Your task to perform on an android device: turn off data saver in the chrome app Image 0: 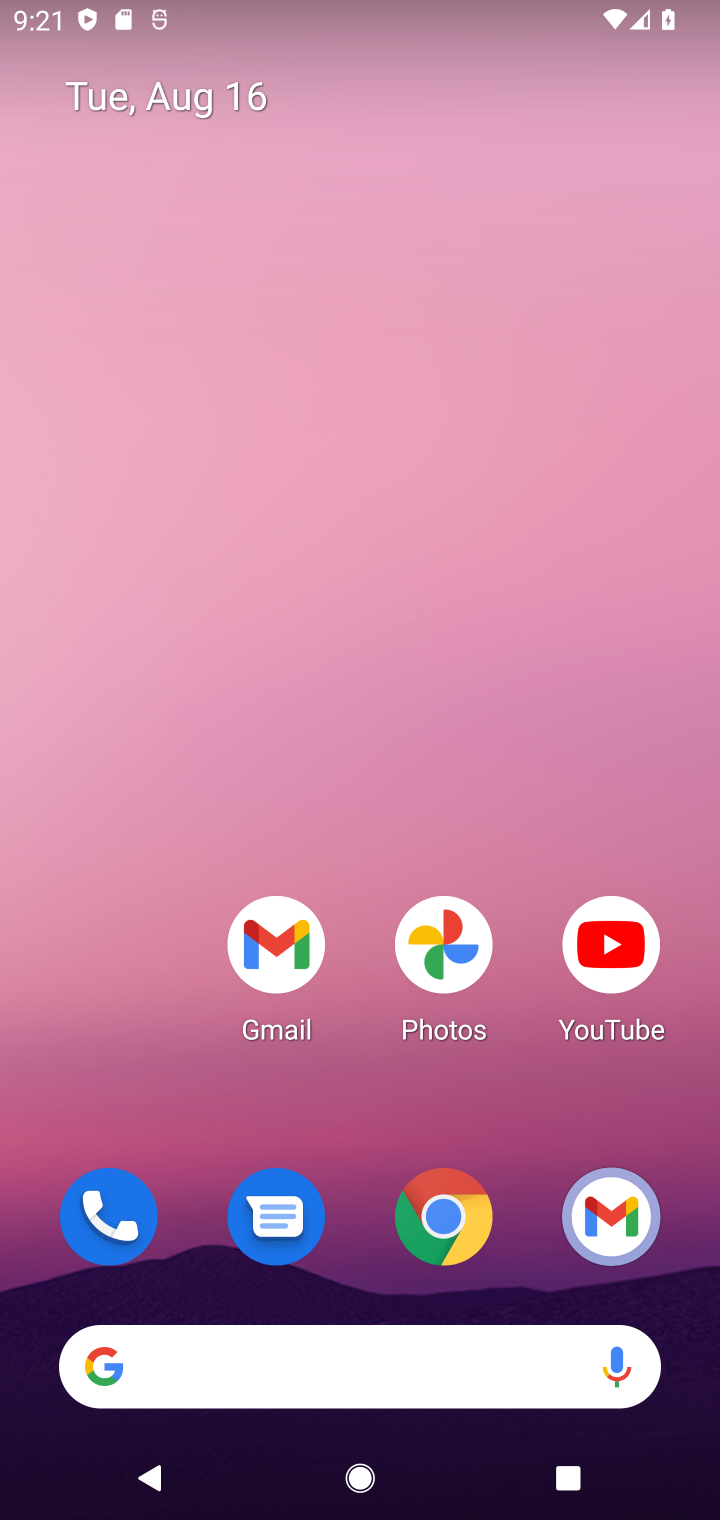
Step 0: click (446, 1211)
Your task to perform on an android device: turn off data saver in the chrome app Image 1: 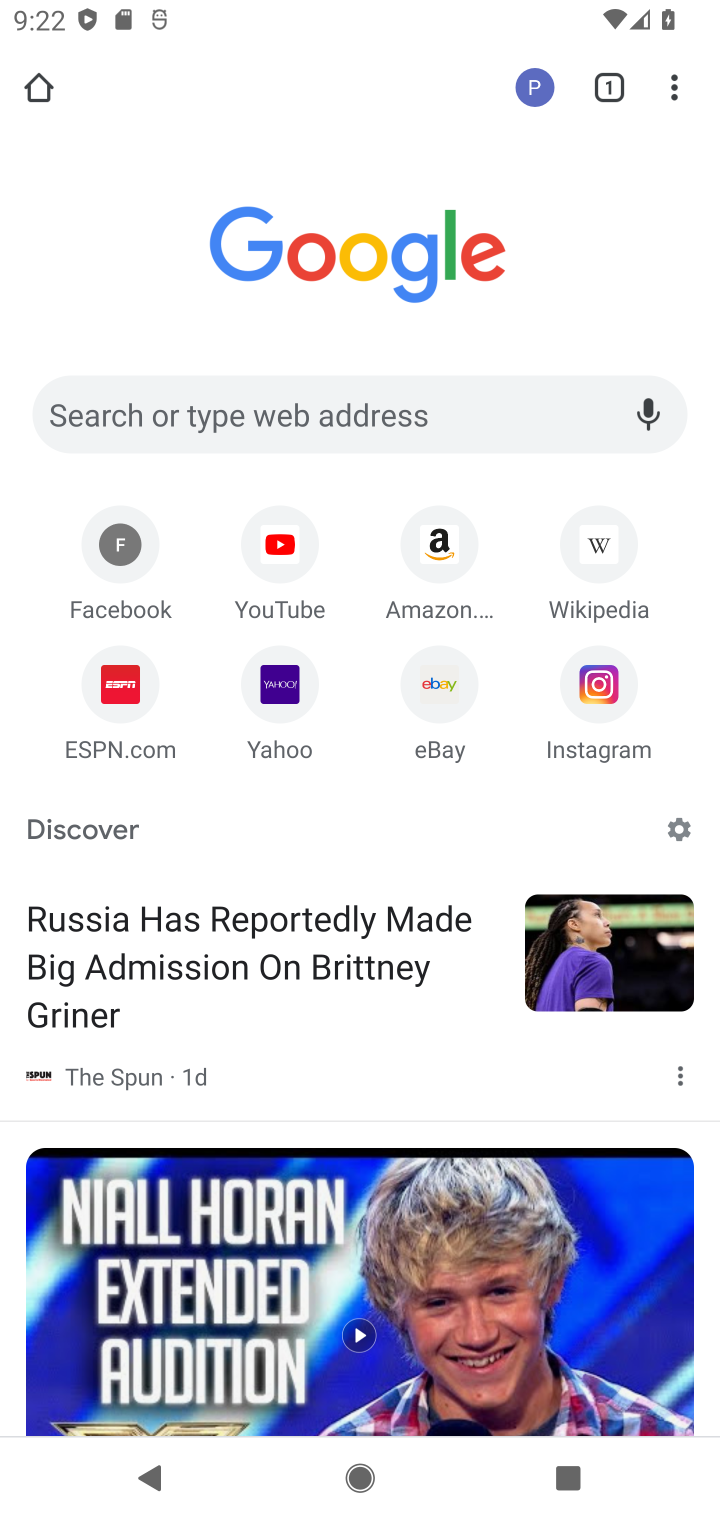
Step 1: click (670, 87)
Your task to perform on an android device: turn off data saver in the chrome app Image 2: 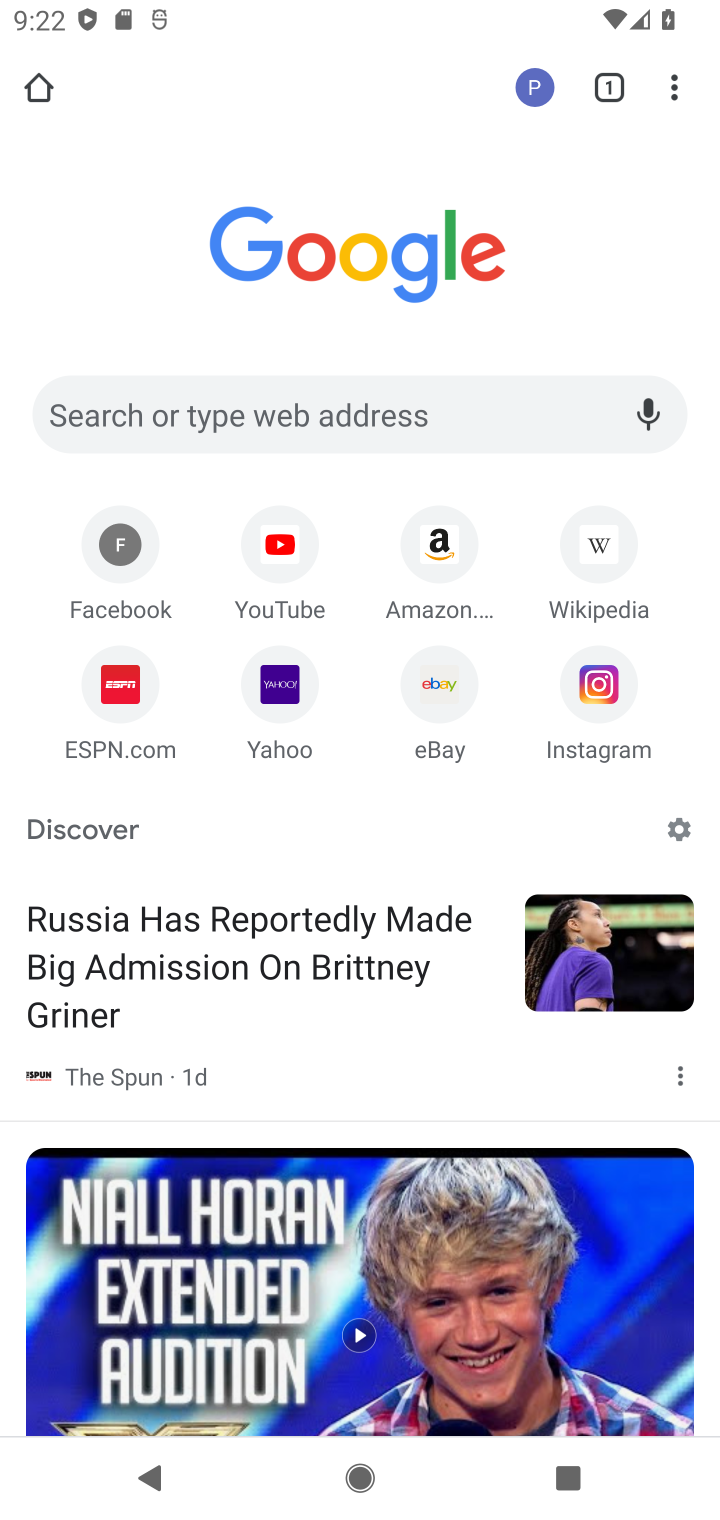
Step 2: click (676, 86)
Your task to perform on an android device: turn off data saver in the chrome app Image 3: 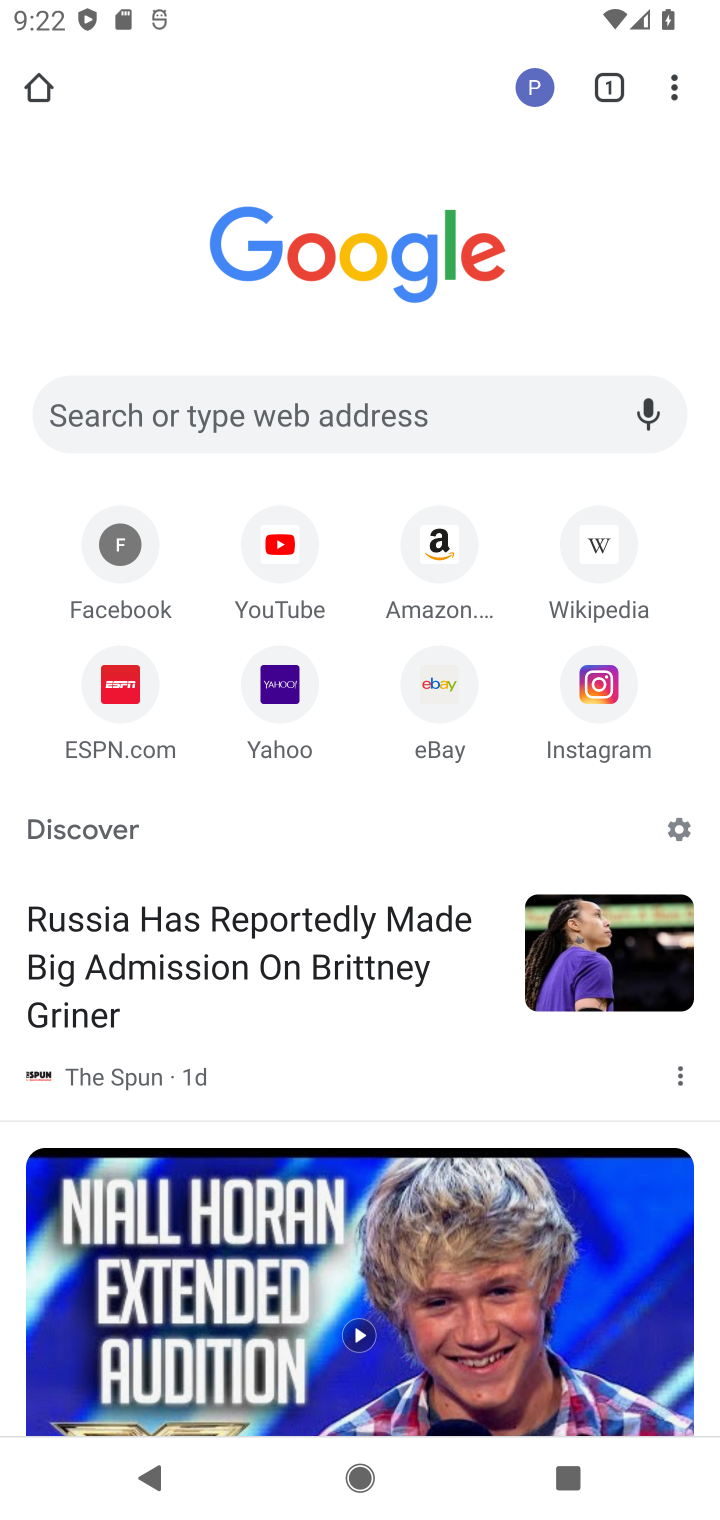
Step 3: drag from (676, 91) to (503, 749)
Your task to perform on an android device: turn off data saver in the chrome app Image 4: 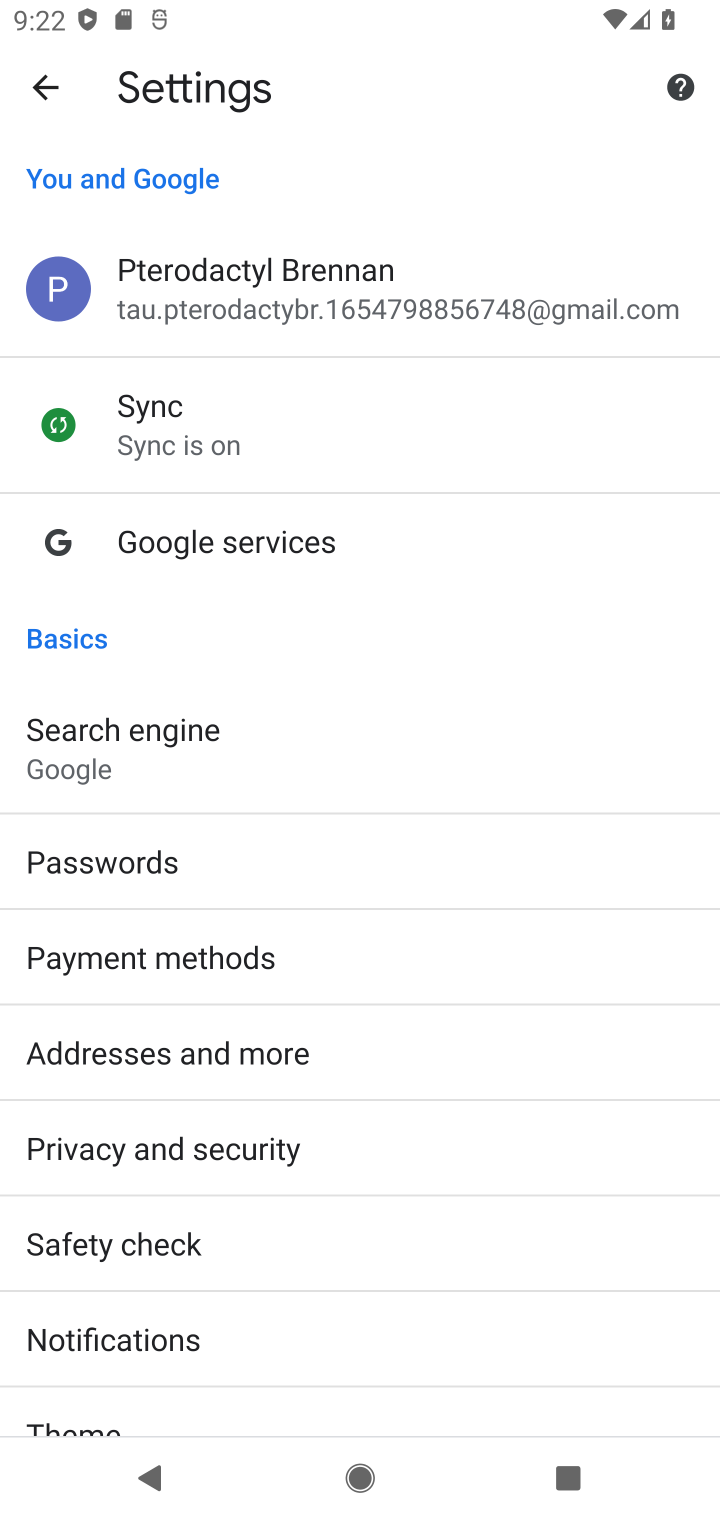
Step 4: drag from (123, 1289) to (190, 841)
Your task to perform on an android device: turn off data saver in the chrome app Image 5: 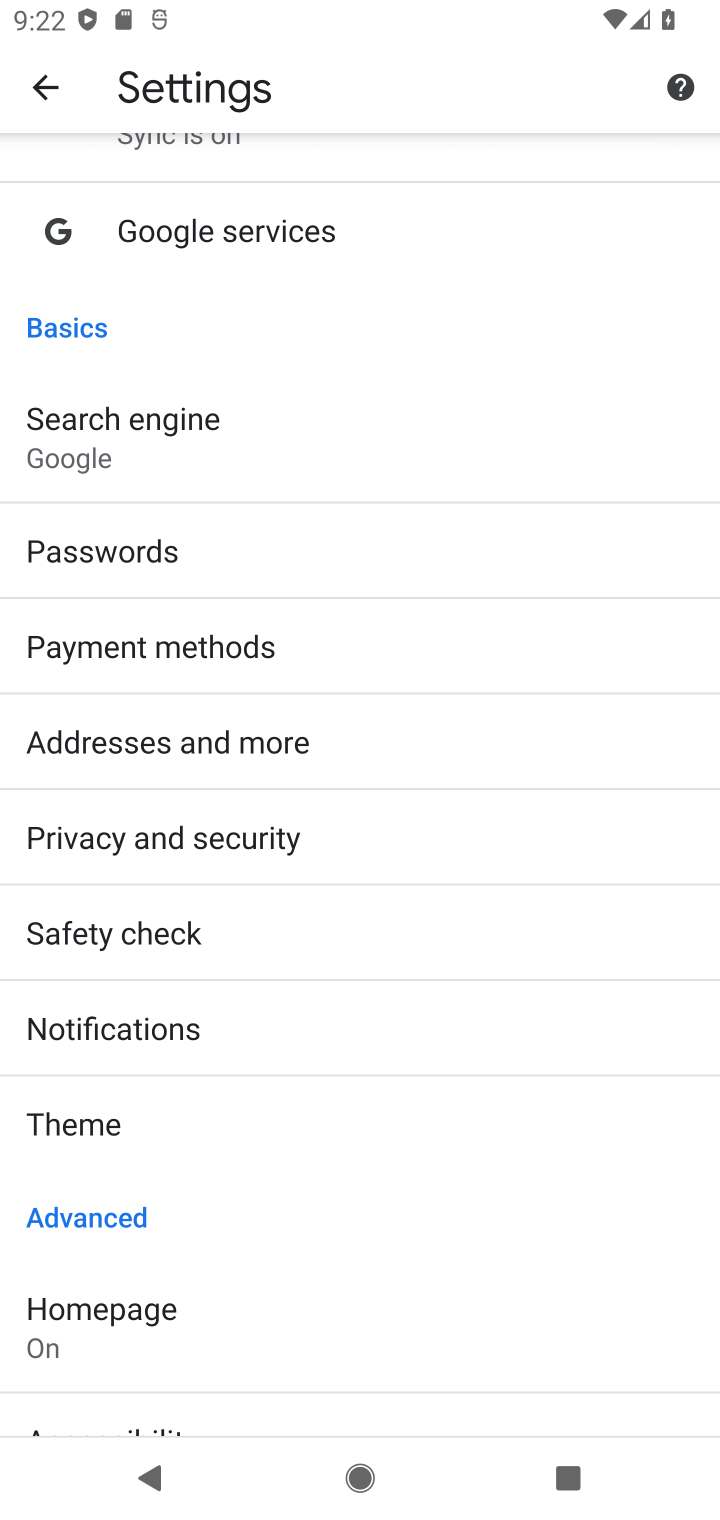
Step 5: drag from (146, 1315) to (227, 684)
Your task to perform on an android device: turn off data saver in the chrome app Image 6: 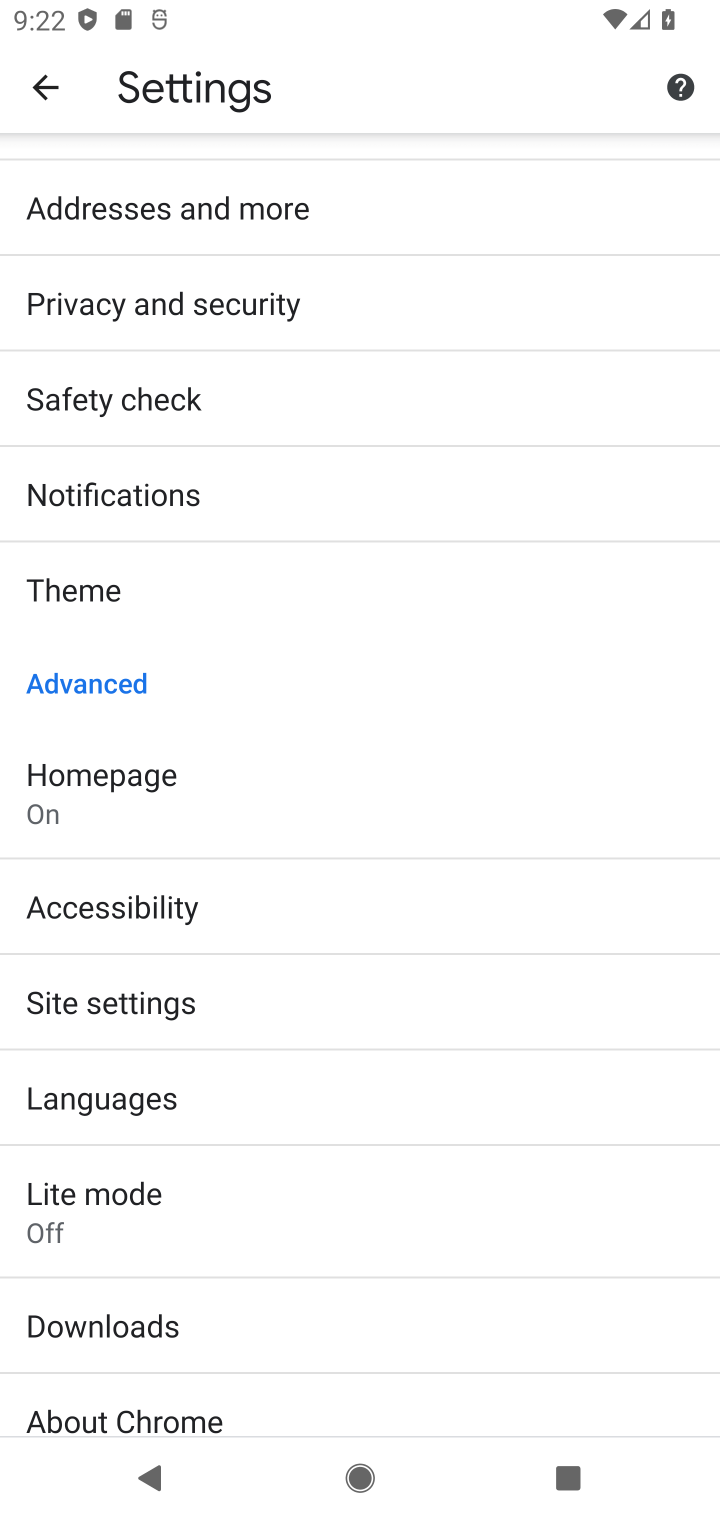
Step 6: click (92, 1195)
Your task to perform on an android device: turn off data saver in the chrome app Image 7: 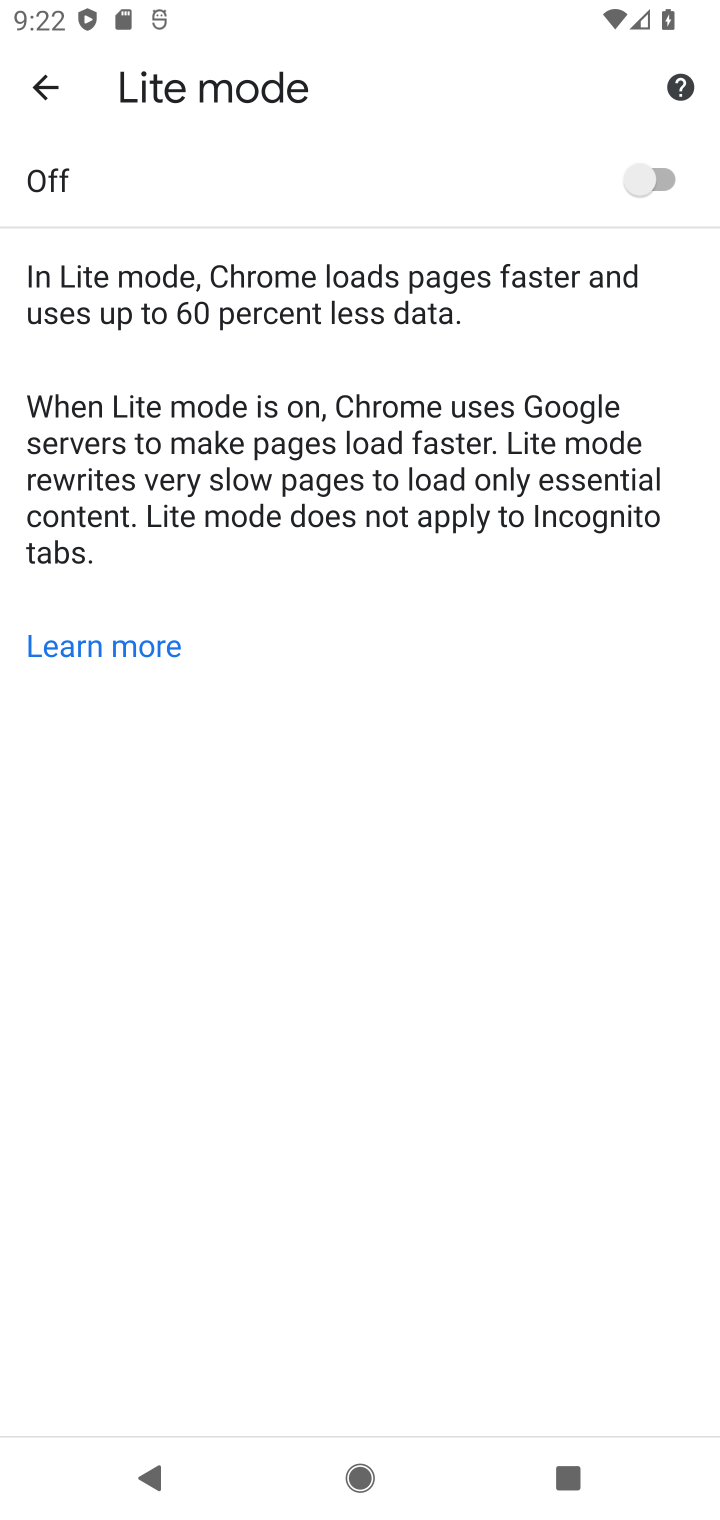
Step 7: task complete